Your task to perform on an android device: Open Chrome and go to the settings page Image 0: 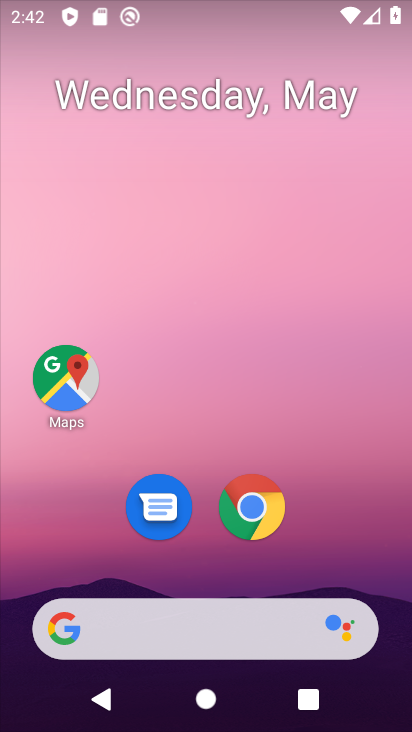
Step 0: click (256, 518)
Your task to perform on an android device: Open Chrome and go to the settings page Image 1: 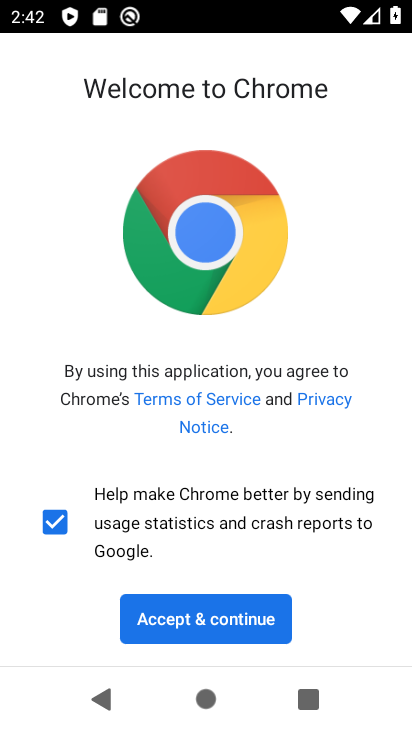
Step 1: click (234, 603)
Your task to perform on an android device: Open Chrome and go to the settings page Image 2: 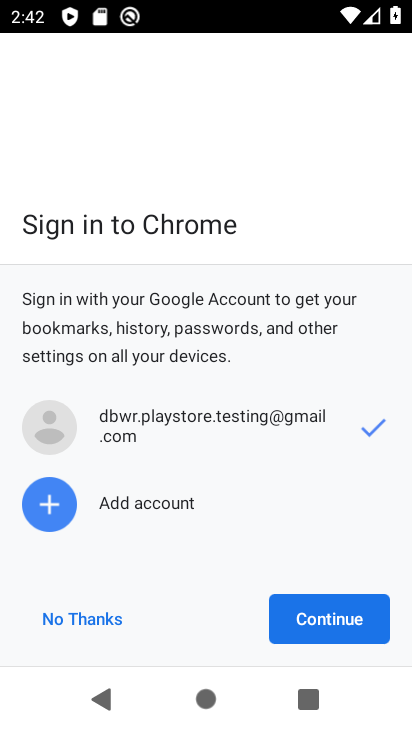
Step 2: click (301, 610)
Your task to perform on an android device: Open Chrome and go to the settings page Image 3: 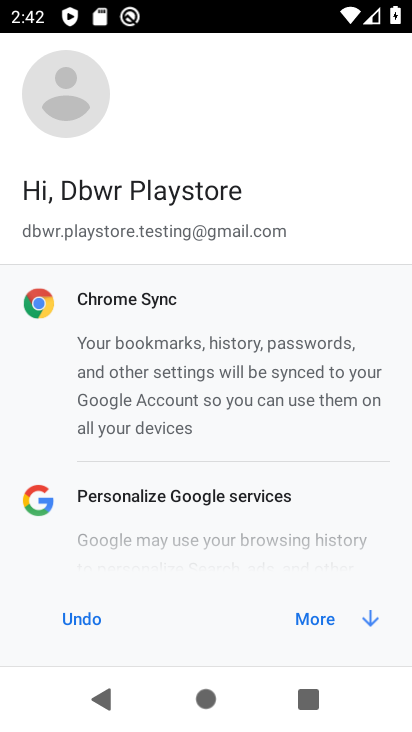
Step 3: click (301, 610)
Your task to perform on an android device: Open Chrome and go to the settings page Image 4: 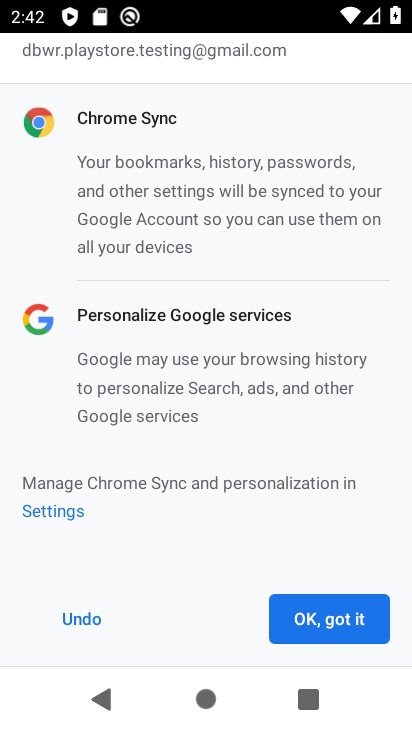
Step 4: click (301, 610)
Your task to perform on an android device: Open Chrome and go to the settings page Image 5: 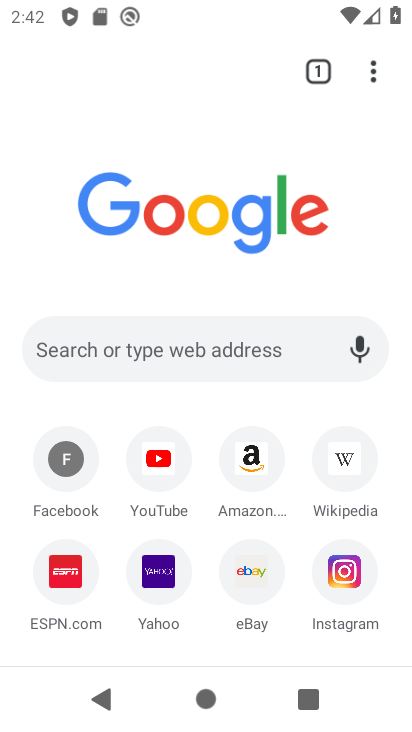
Step 5: click (365, 68)
Your task to perform on an android device: Open Chrome and go to the settings page Image 6: 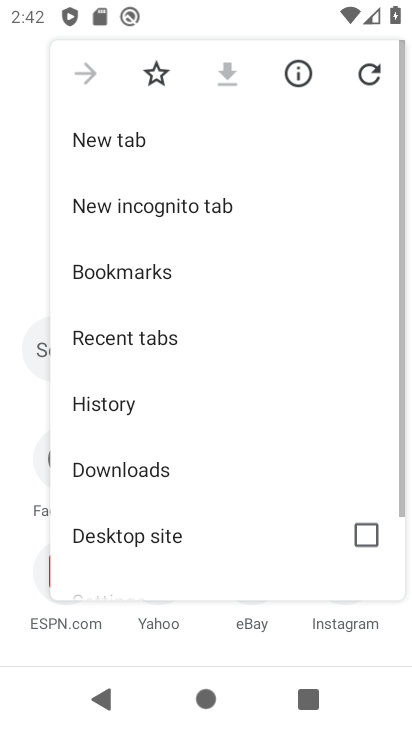
Step 6: drag from (214, 488) to (204, 160)
Your task to perform on an android device: Open Chrome and go to the settings page Image 7: 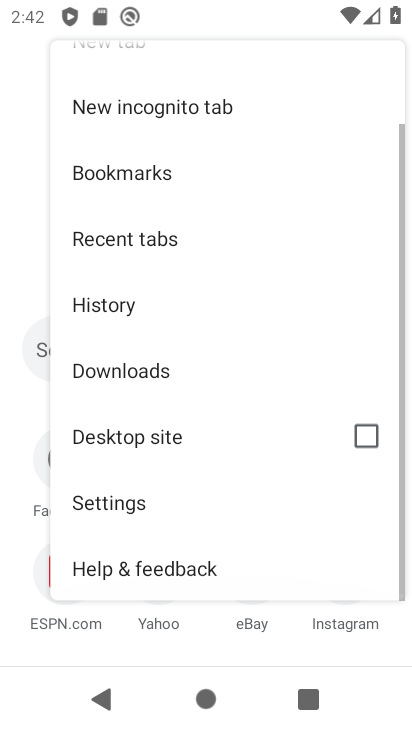
Step 7: click (106, 492)
Your task to perform on an android device: Open Chrome and go to the settings page Image 8: 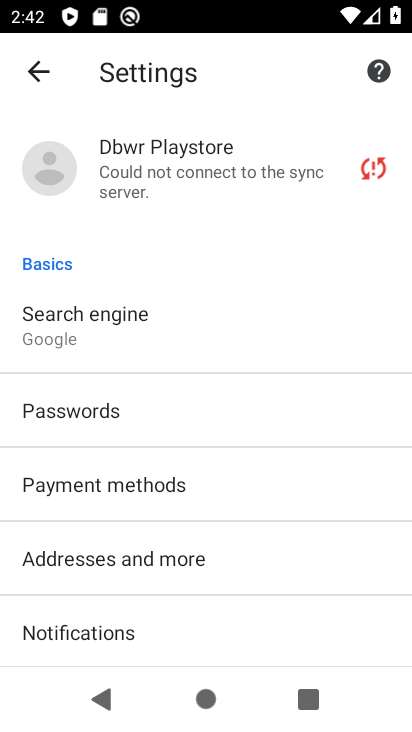
Step 8: task complete